Your task to perform on an android device: Go to settings Image 0: 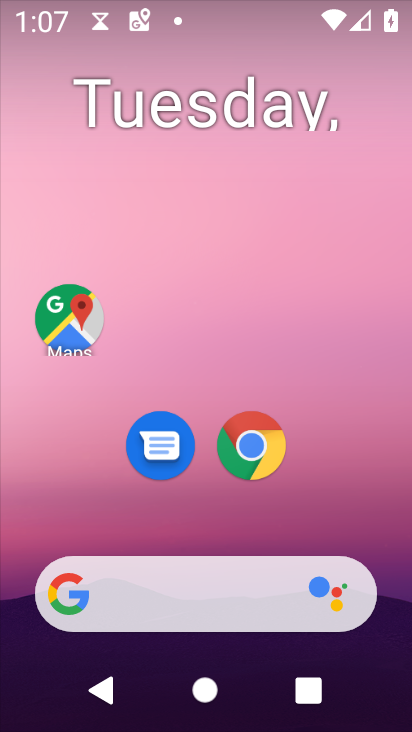
Step 0: drag from (247, 594) to (244, 4)
Your task to perform on an android device: Go to settings Image 1: 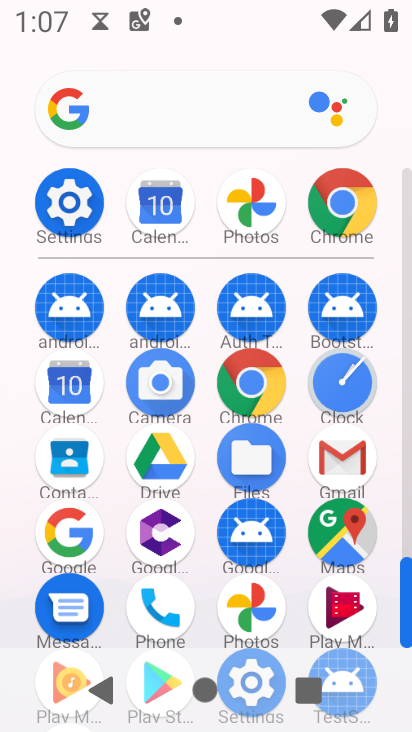
Step 1: click (79, 212)
Your task to perform on an android device: Go to settings Image 2: 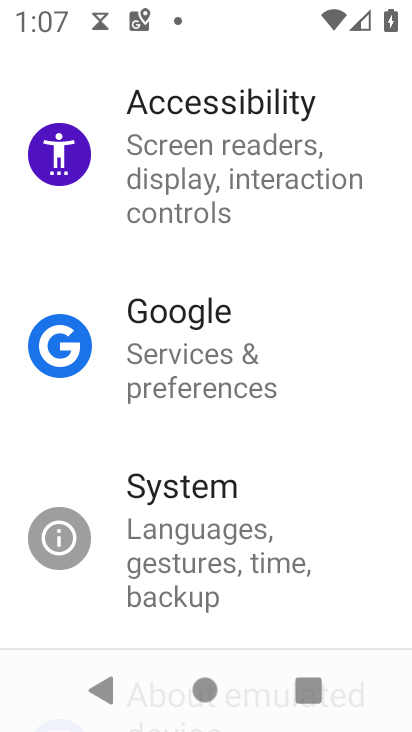
Step 2: task complete